Your task to perform on an android device: install app "Google Play services" Image 0: 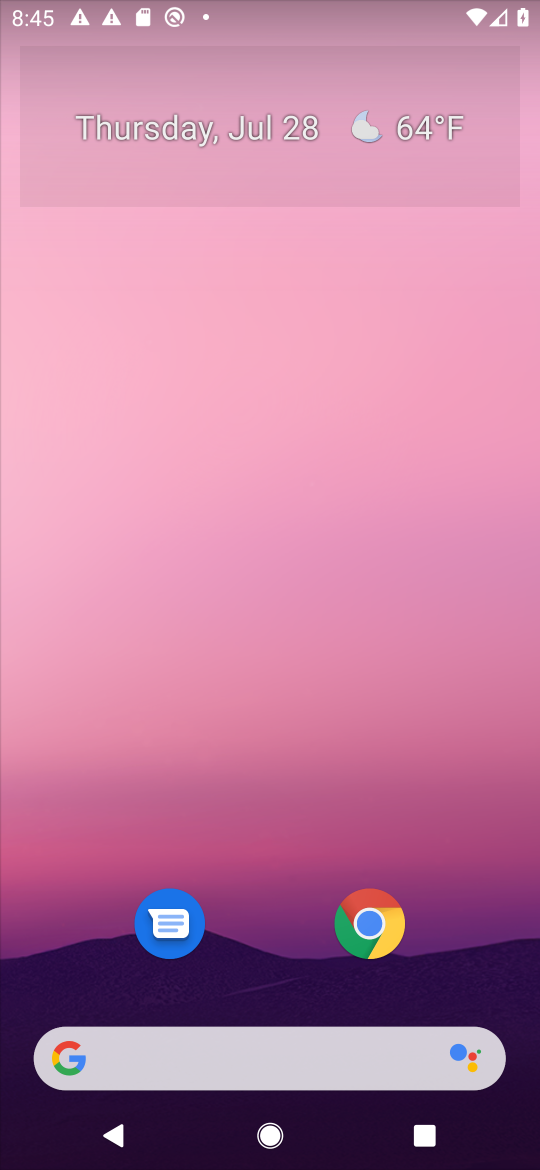
Step 0: drag from (448, 970) to (301, 175)
Your task to perform on an android device: install app "Google Play services" Image 1: 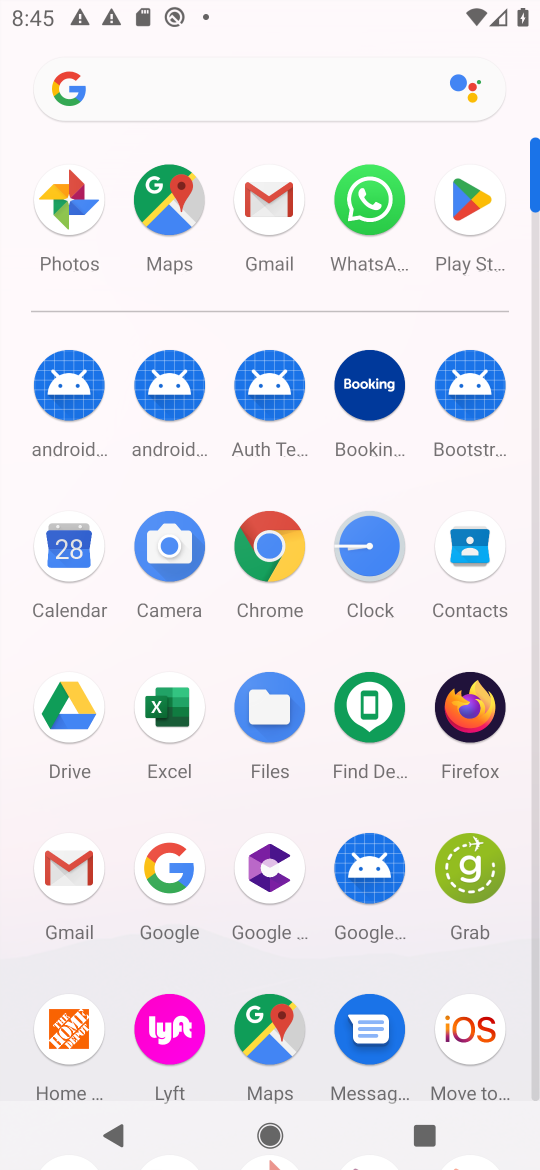
Step 1: click (481, 210)
Your task to perform on an android device: install app "Google Play services" Image 2: 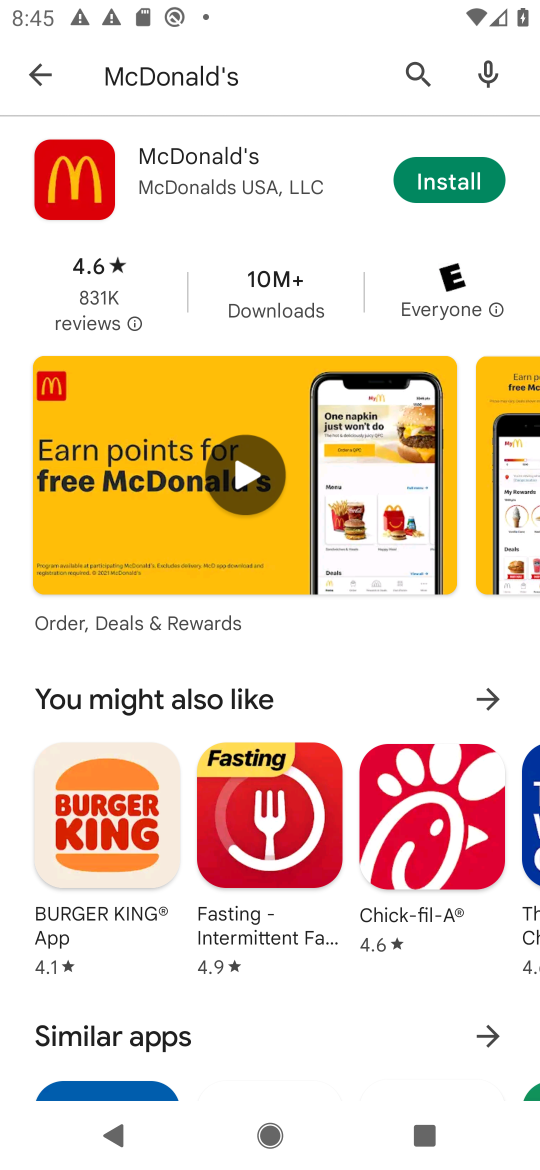
Step 2: click (408, 66)
Your task to perform on an android device: install app "Google Play services" Image 3: 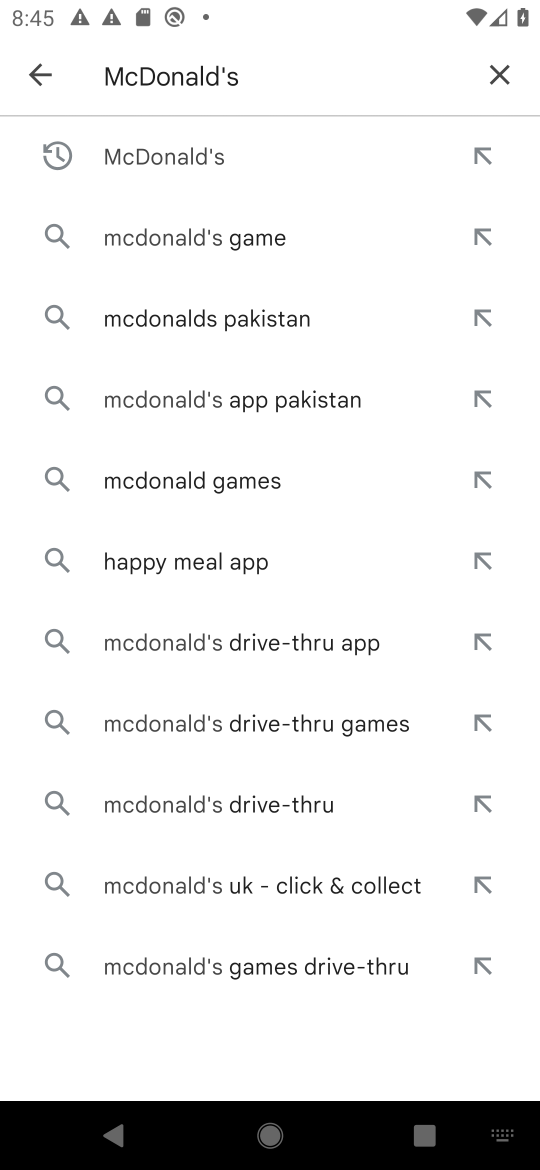
Step 3: click (498, 67)
Your task to perform on an android device: install app "Google Play services" Image 4: 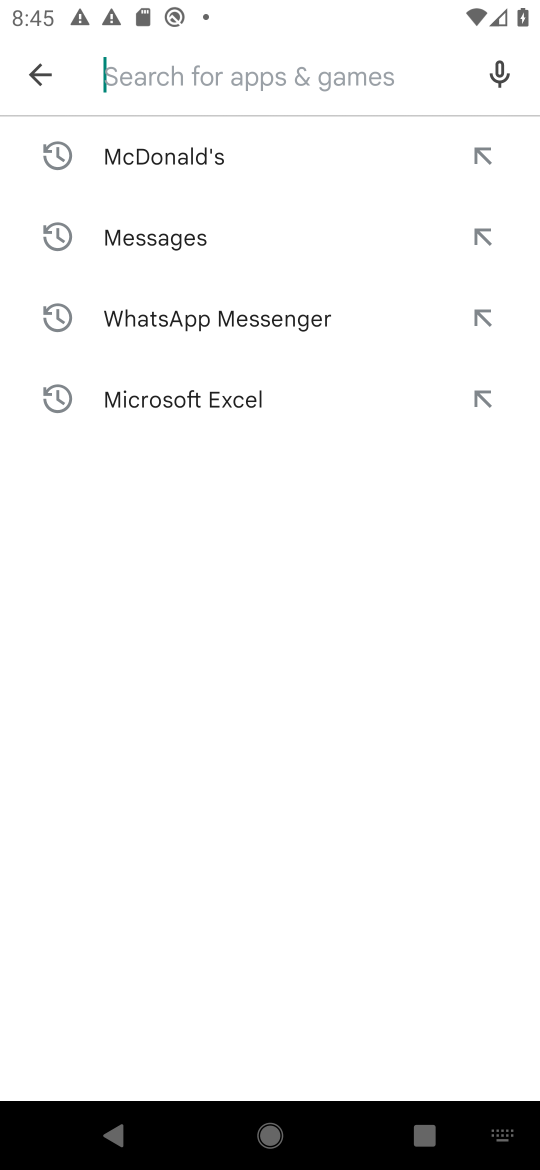
Step 4: type "Google Play services"
Your task to perform on an android device: install app "Google Play services" Image 5: 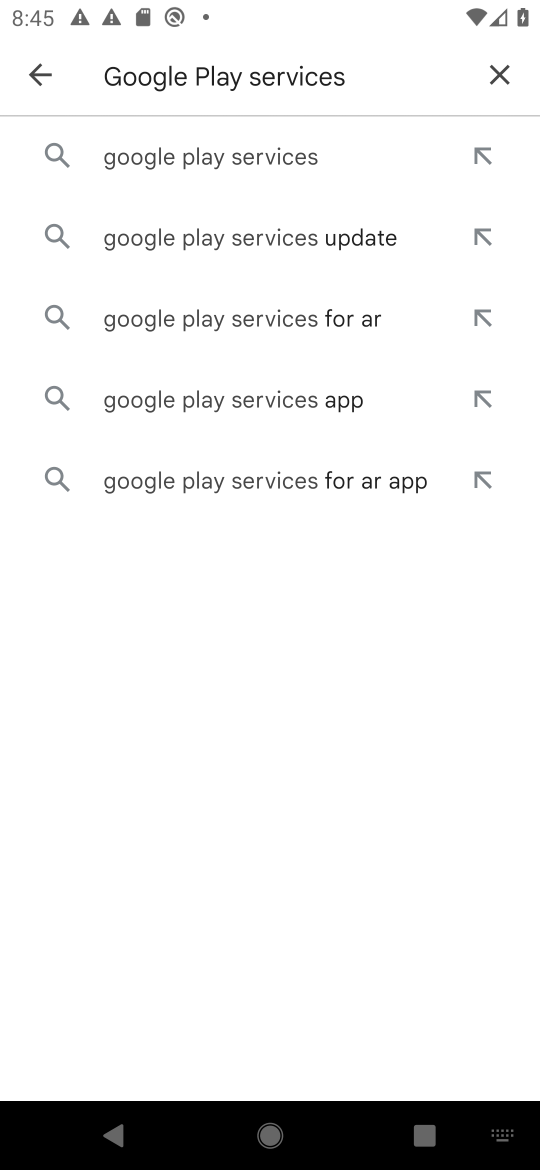
Step 5: press enter
Your task to perform on an android device: install app "Google Play services" Image 6: 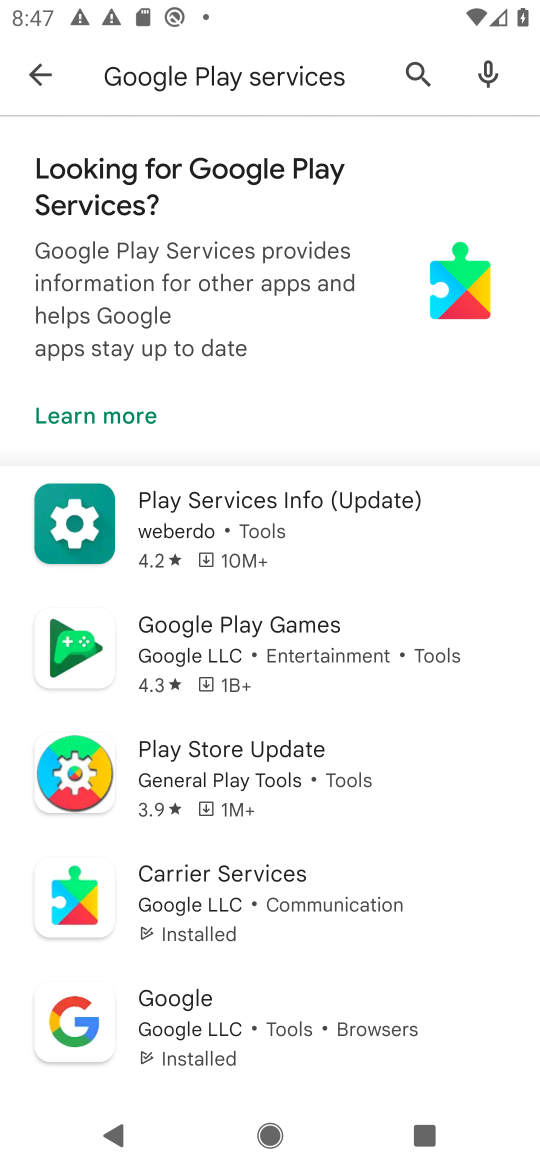
Step 6: task complete